Your task to perform on an android device: What's the weather like in Rio de Janeiro? Image 0: 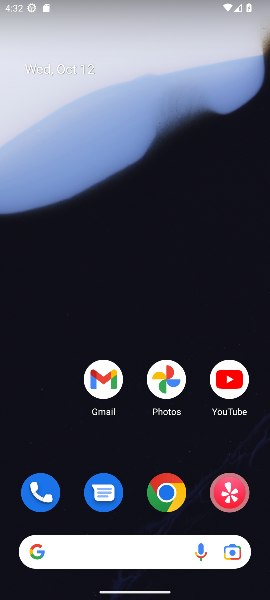
Step 0: click (166, 496)
Your task to perform on an android device: What's the weather like in Rio de Janeiro? Image 1: 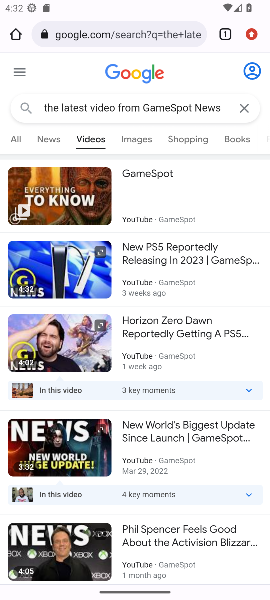
Step 1: click (122, 34)
Your task to perform on an android device: What's the weather like in Rio de Janeiro? Image 2: 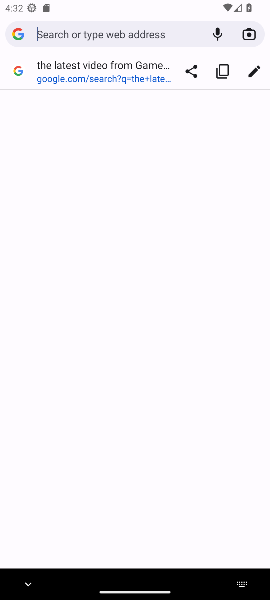
Step 2: type "weather in Rio de Janeiro"
Your task to perform on an android device: What's the weather like in Rio de Janeiro? Image 3: 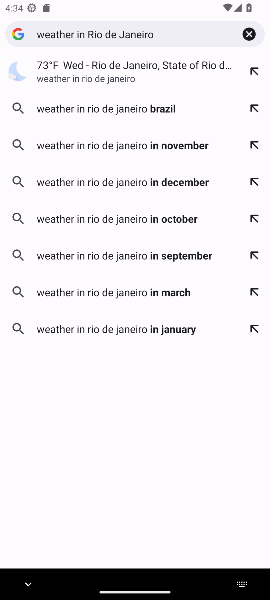
Step 3: click (87, 108)
Your task to perform on an android device: What's the weather like in Rio de Janeiro? Image 4: 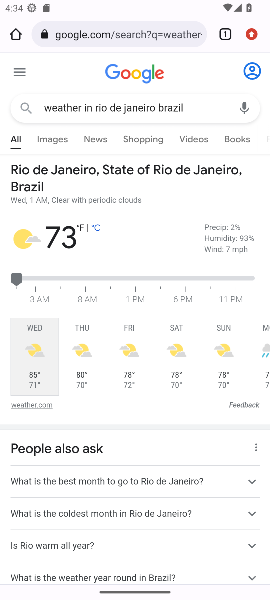
Step 4: task complete